Your task to perform on an android device: Show me popular videos on Youtube Image 0: 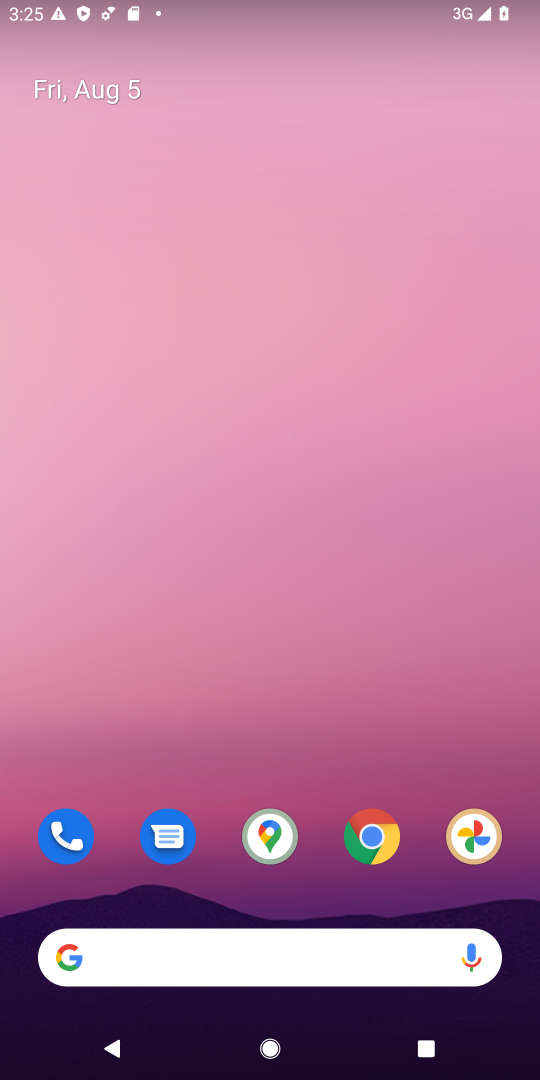
Step 0: drag from (275, 880) to (357, 2)
Your task to perform on an android device: Show me popular videos on Youtube Image 1: 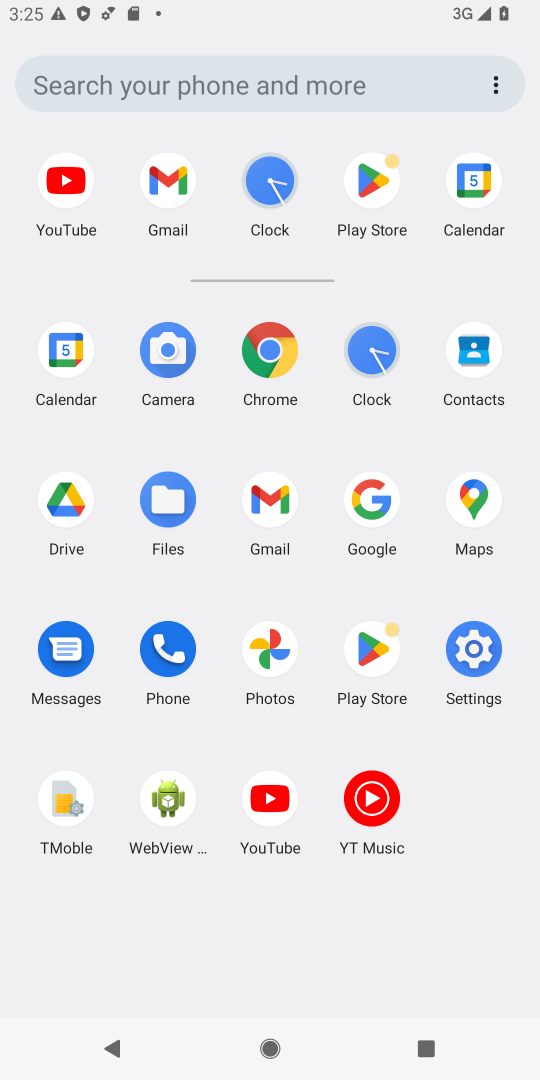
Step 1: click (282, 803)
Your task to perform on an android device: Show me popular videos on Youtube Image 2: 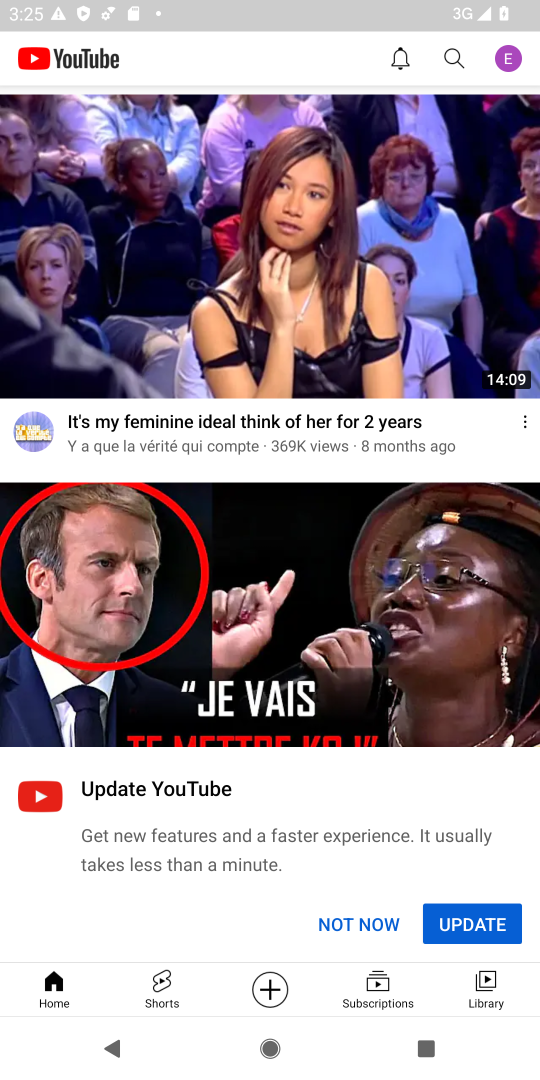
Step 2: click (446, 48)
Your task to perform on an android device: Show me popular videos on Youtube Image 3: 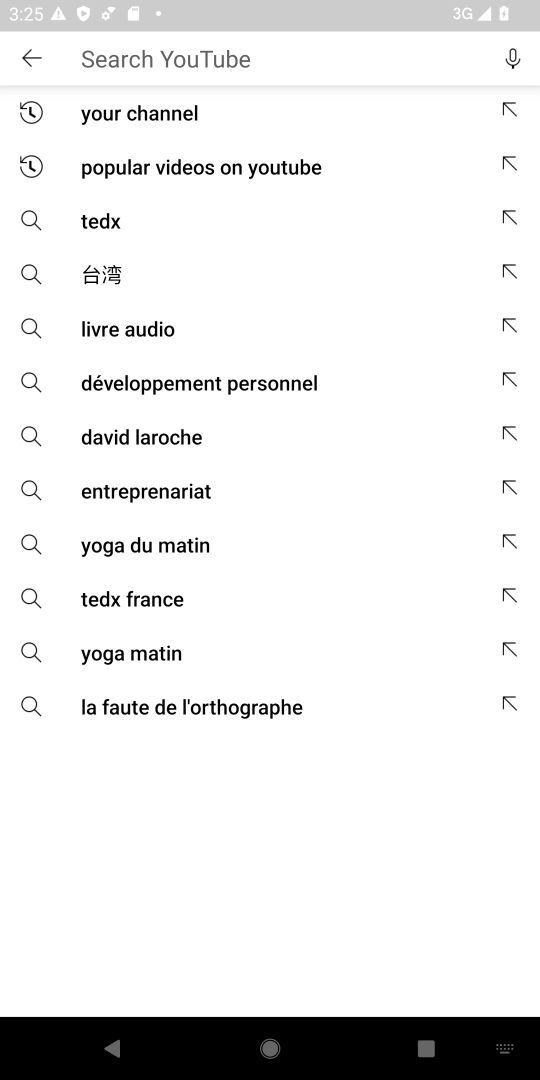
Step 3: click (223, 177)
Your task to perform on an android device: Show me popular videos on Youtube Image 4: 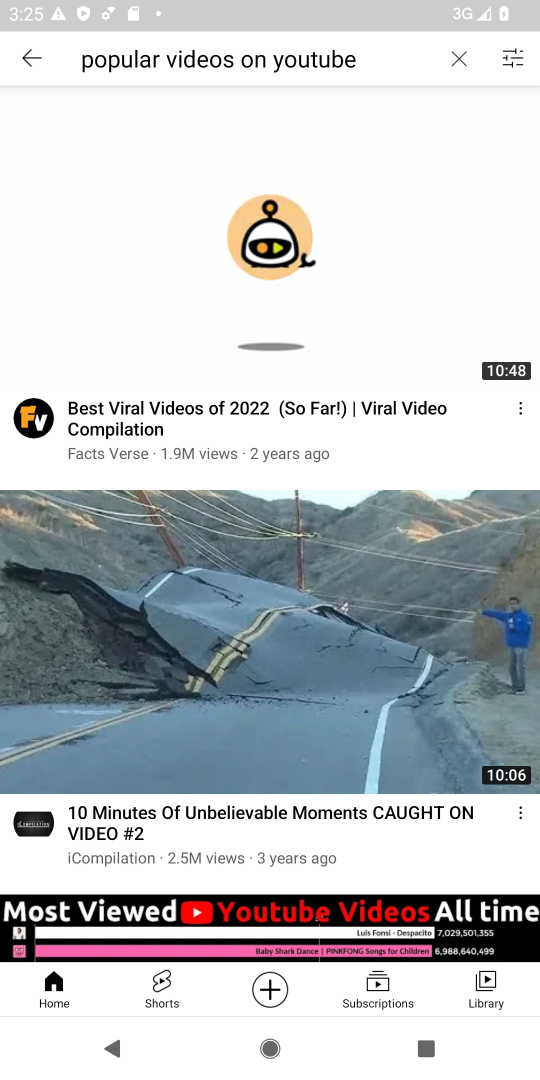
Step 4: task complete